Your task to perform on an android device: open app "Instagram" (install if not already installed), go to login, and select forgot password Image 0: 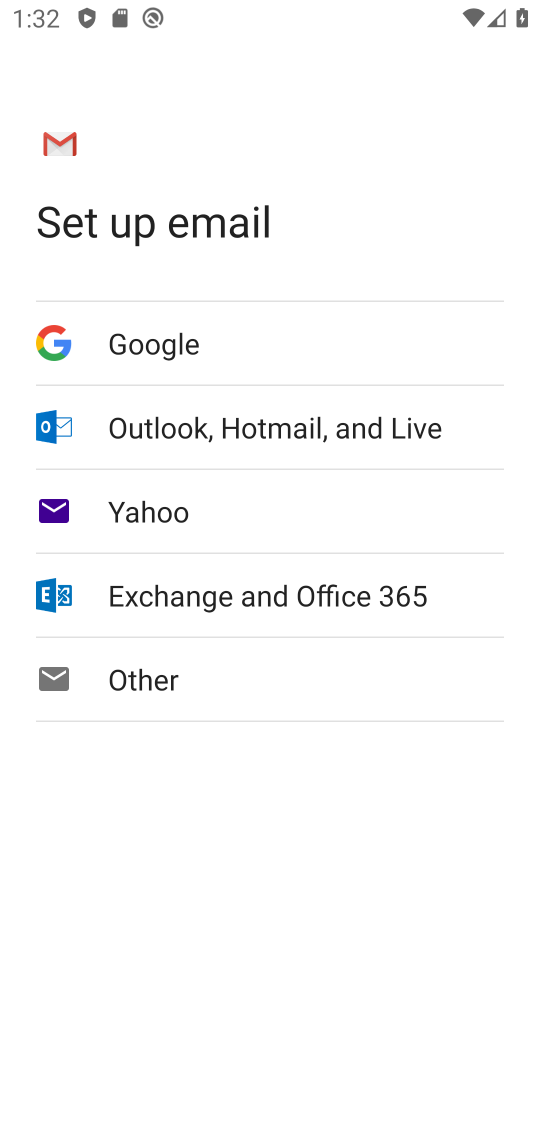
Step 0: press home button
Your task to perform on an android device: open app "Instagram" (install if not already installed), go to login, and select forgot password Image 1: 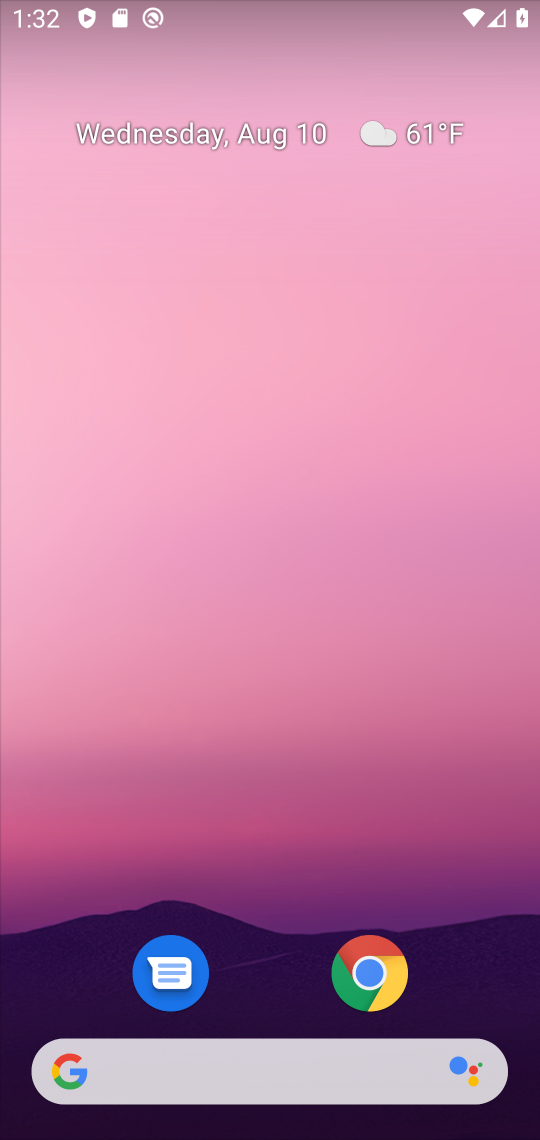
Step 1: drag from (236, 867) to (254, 220)
Your task to perform on an android device: open app "Instagram" (install if not already installed), go to login, and select forgot password Image 2: 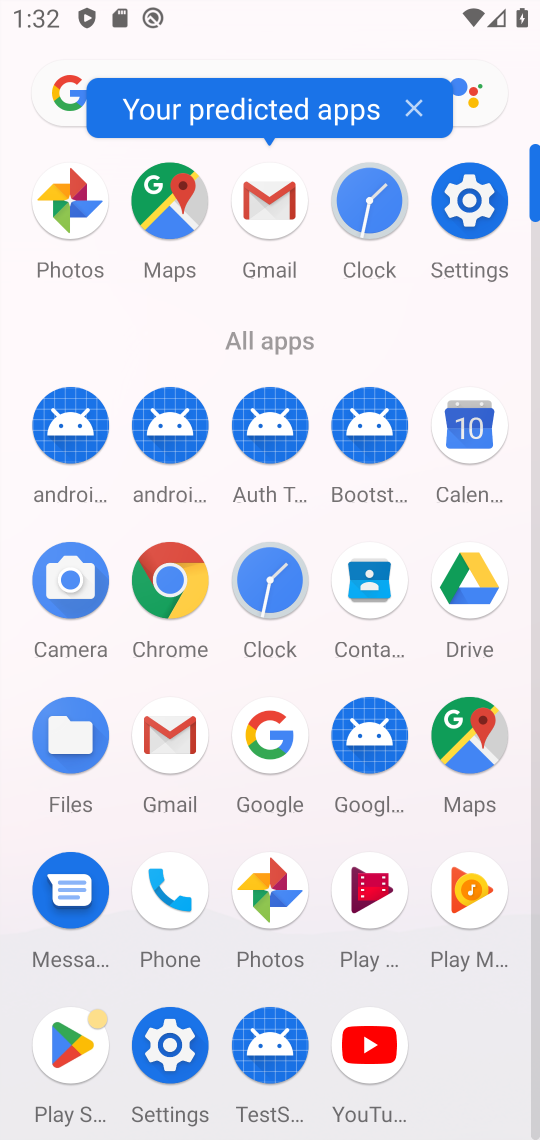
Step 2: click (51, 1039)
Your task to perform on an android device: open app "Instagram" (install if not already installed), go to login, and select forgot password Image 3: 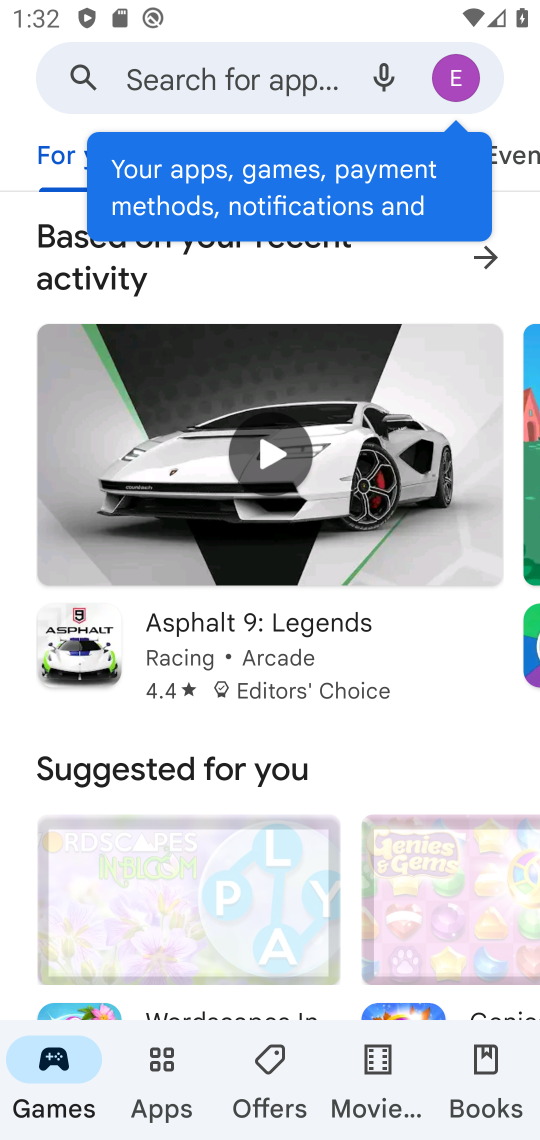
Step 3: click (249, 76)
Your task to perform on an android device: open app "Instagram" (install if not already installed), go to login, and select forgot password Image 4: 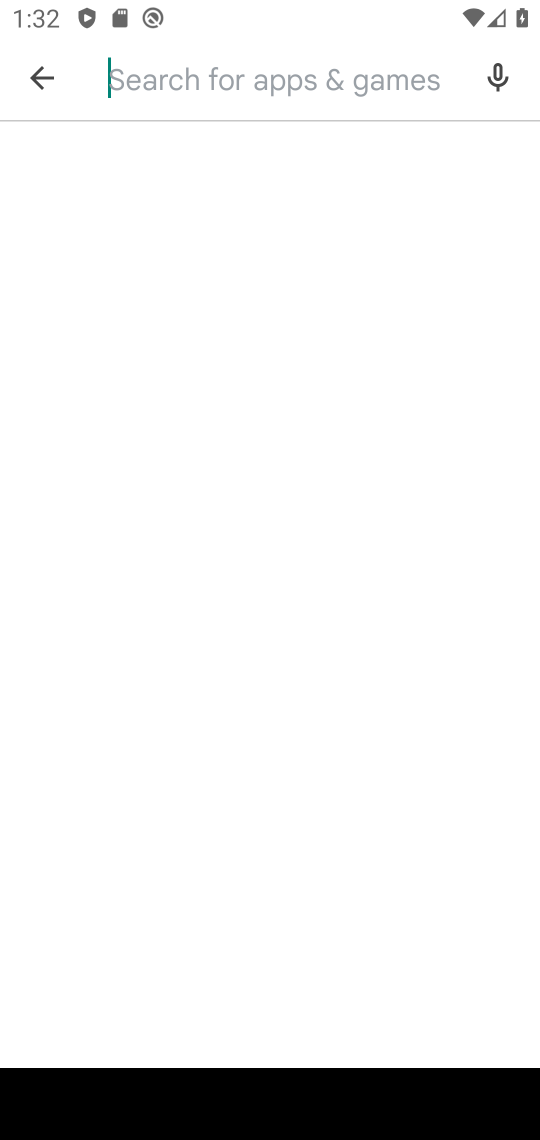
Step 4: type "instagarm "
Your task to perform on an android device: open app "Instagram" (install if not already installed), go to login, and select forgot password Image 5: 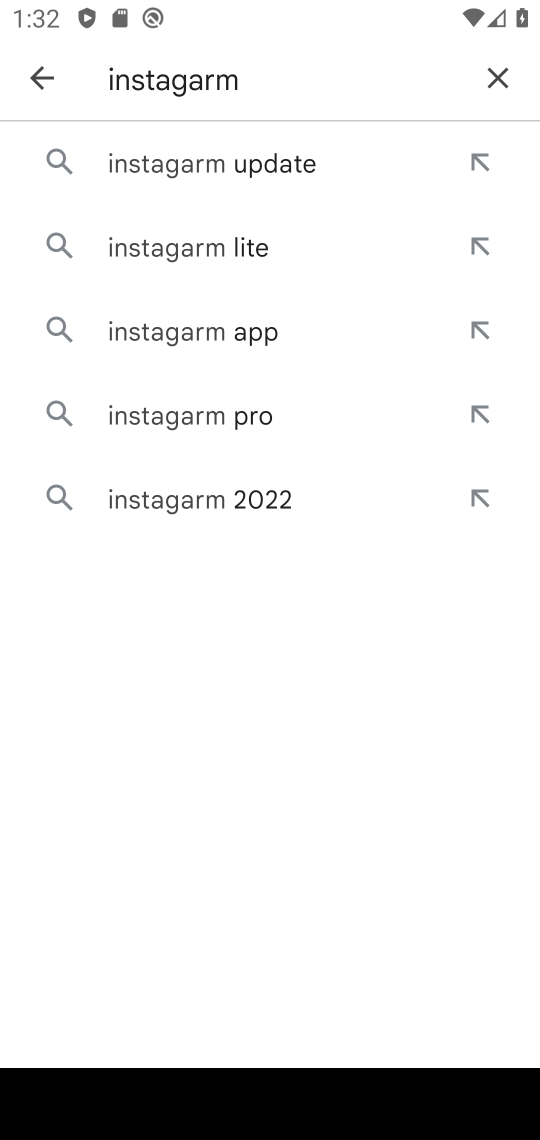
Step 5: click (221, 159)
Your task to perform on an android device: open app "Instagram" (install if not already installed), go to login, and select forgot password Image 6: 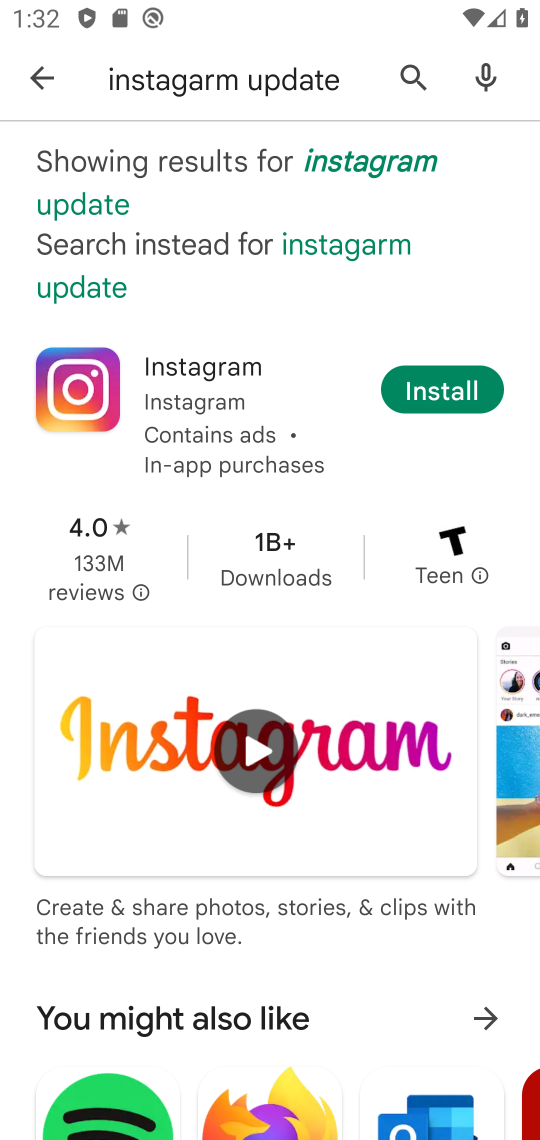
Step 6: click (458, 379)
Your task to perform on an android device: open app "Instagram" (install if not already installed), go to login, and select forgot password Image 7: 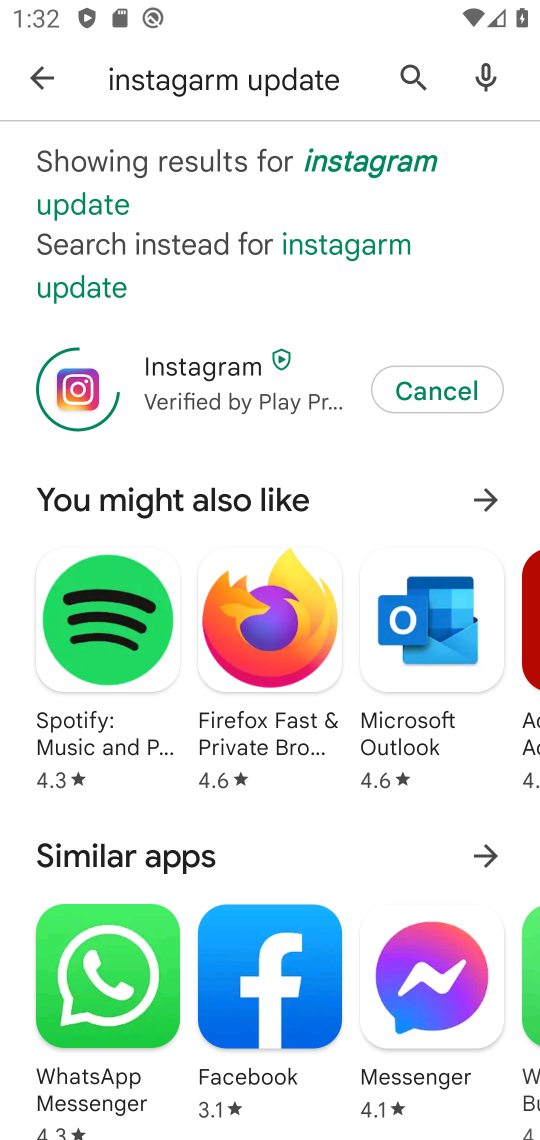
Step 7: click (446, 373)
Your task to perform on an android device: open app "Instagram" (install if not already installed), go to login, and select forgot password Image 8: 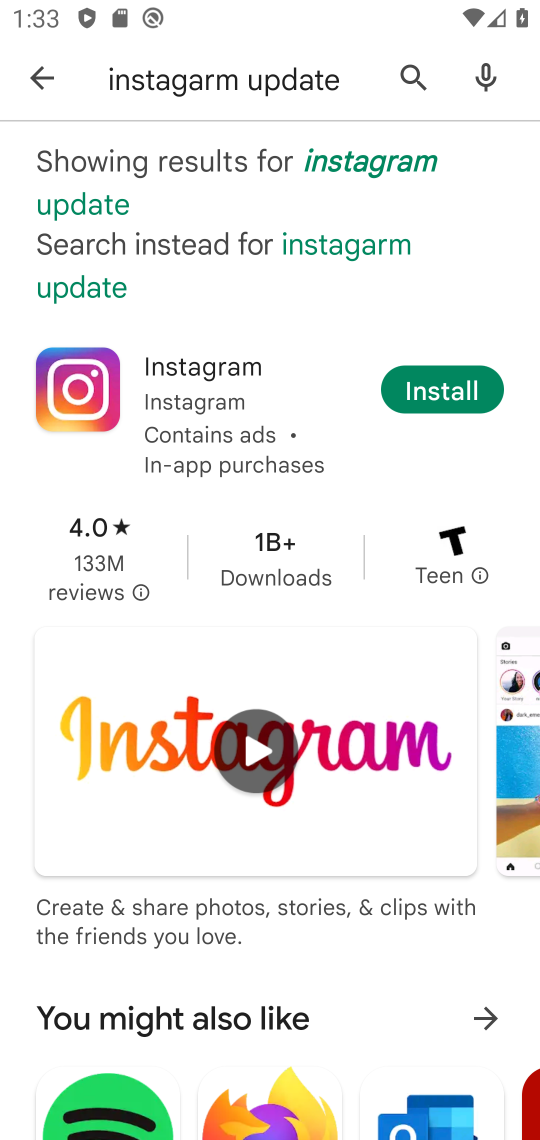
Step 8: click (192, 424)
Your task to perform on an android device: open app "Instagram" (install if not already installed), go to login, and select forgot password Image 9: 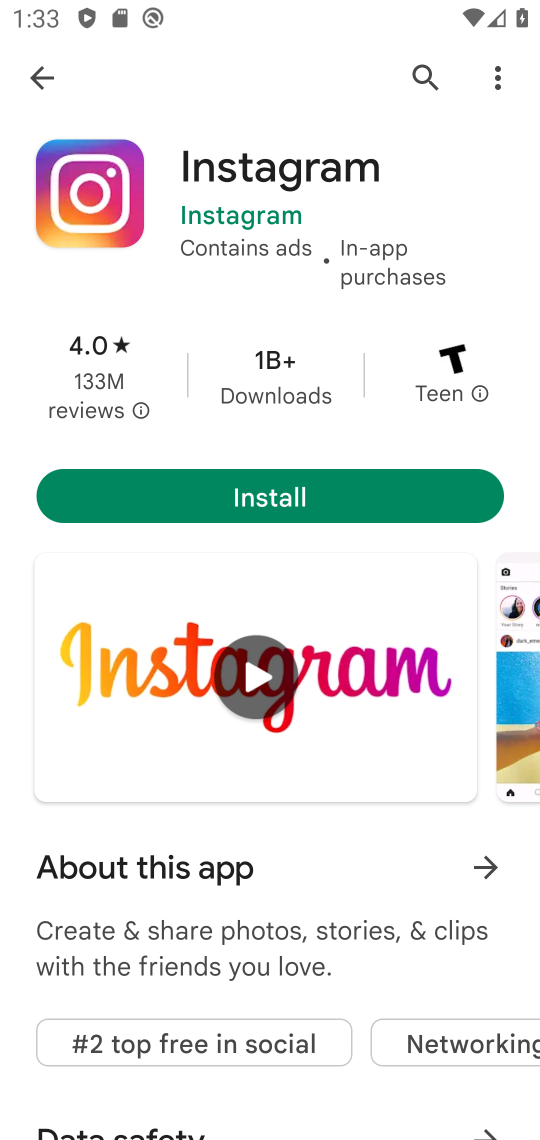
Step 9: click (266, 496)
Your task to perform on an android device: open app "Instagram" (install if not already installed), go to login, and select forgot password Image 10: 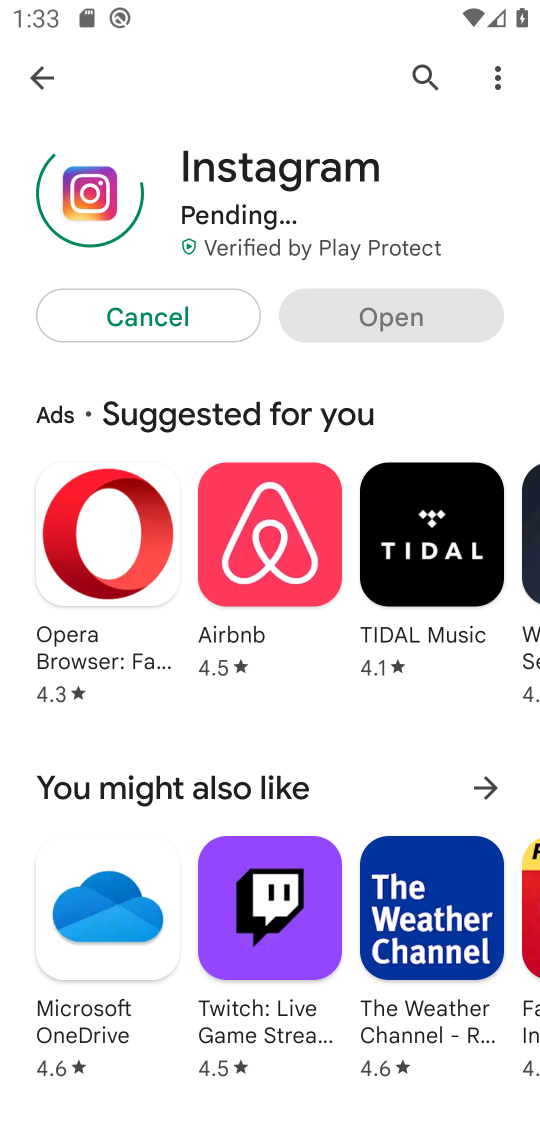
Step 10: task complete